Your task to perform on an android device: toggle javascript in the chrome app Image 0: 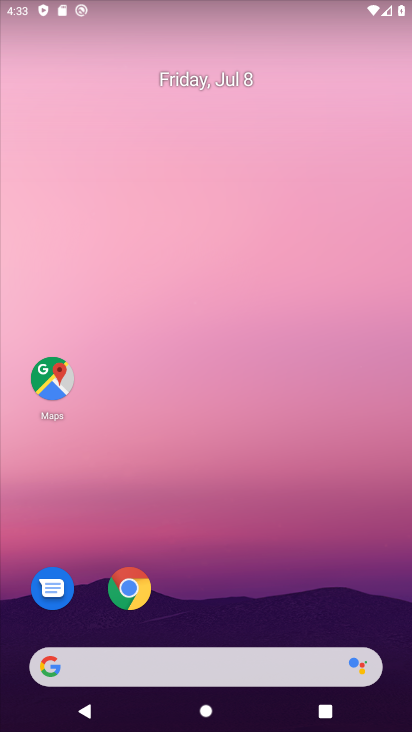
Step 0: click (132, 590)
Your task to perform on an android device: toggle javascript in the chrome app Image 1: 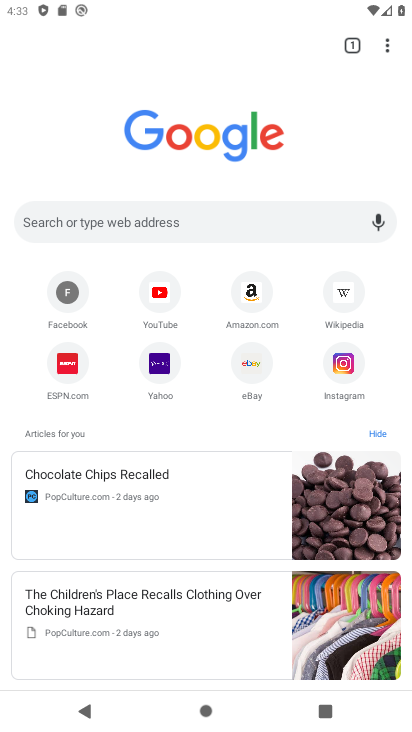
Step 1: click (388, 41)
Your task to perform on an android device: toggle javascript in the chrome app Image 2: 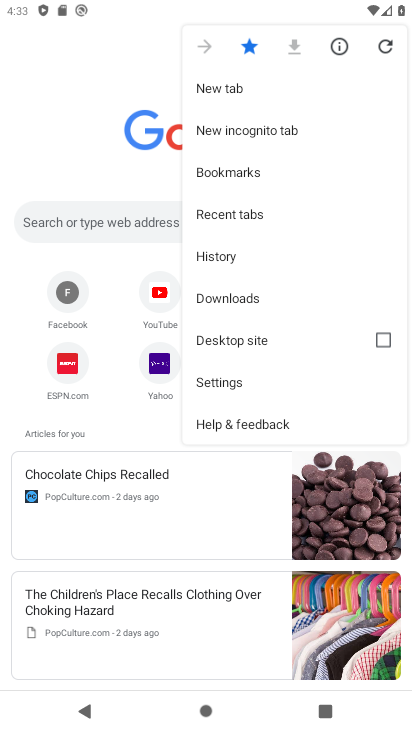
Step 2: click (255, 383)
Your task to perform on an android device: toggle javascript in the chrome app Image 3: 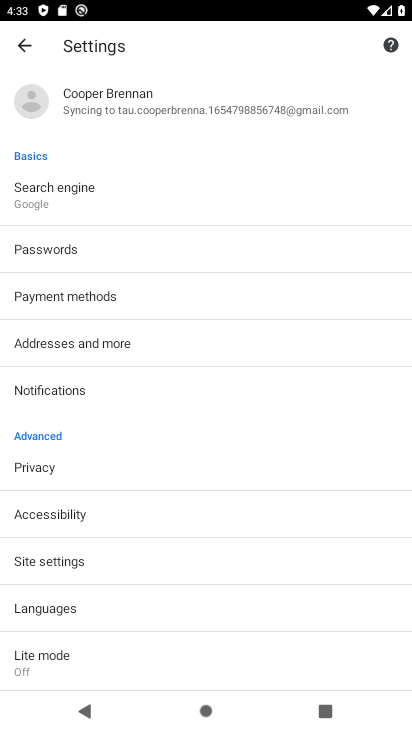
Step 3: task complete